Your task to perform on an android device: Open Yahoo.com Image 0: 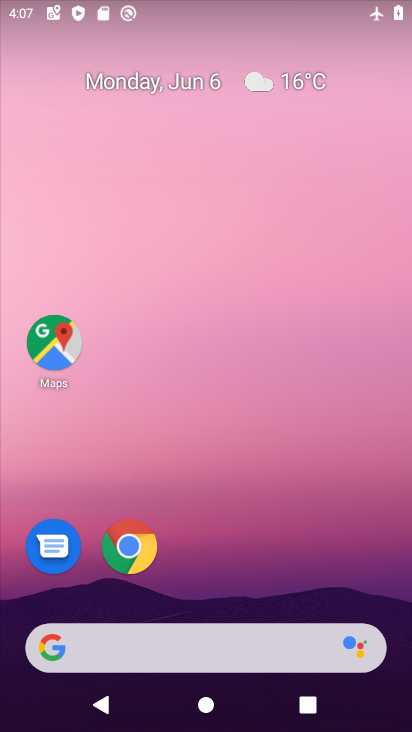
Step 0: drag from (308, 581) to (321, 6)
Your task to perform on an android device: Open Yahoo.com Image 1: 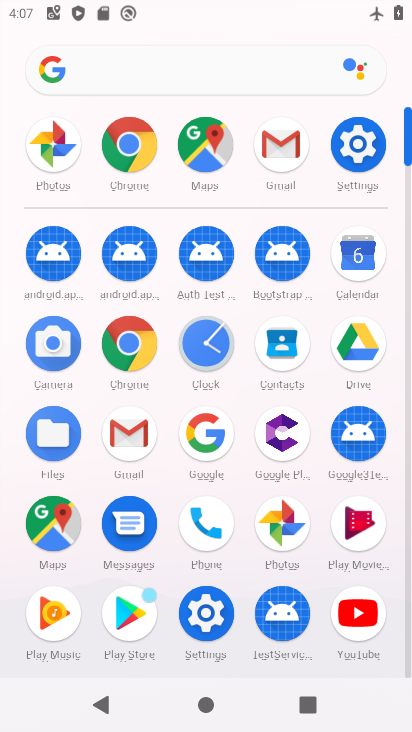
Step 1: click (115, 179)
Your task to perform on an android device: Open Yahoo.com Image 2: 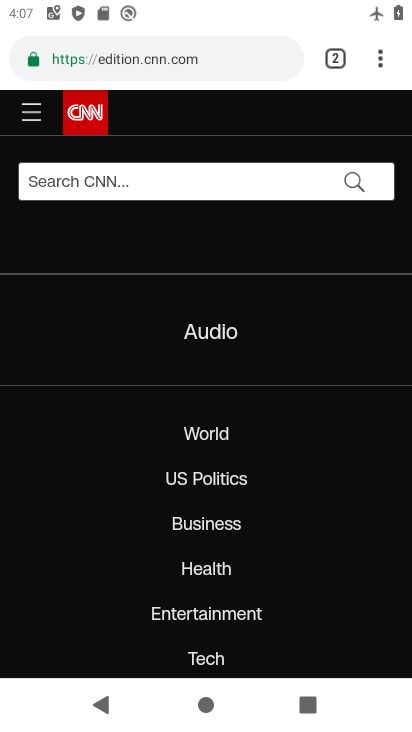
Step 2: click (207, 50)
Your task to perform on an android device: Open Yahoo.com Image 3: 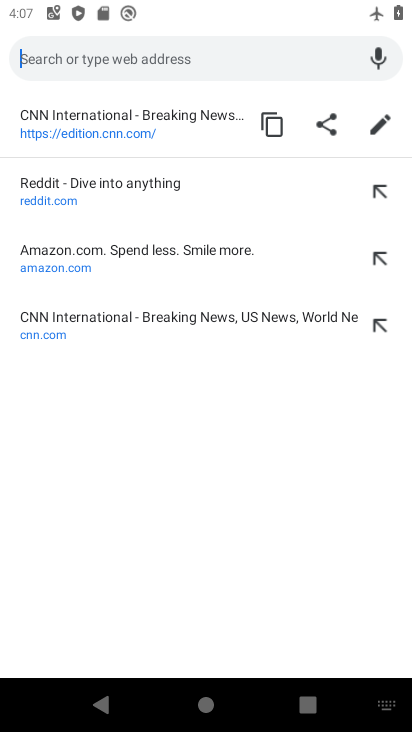
Step 3: type "yahoo"
Your task to perform on an android device: Open Yahoo.com Image 4: 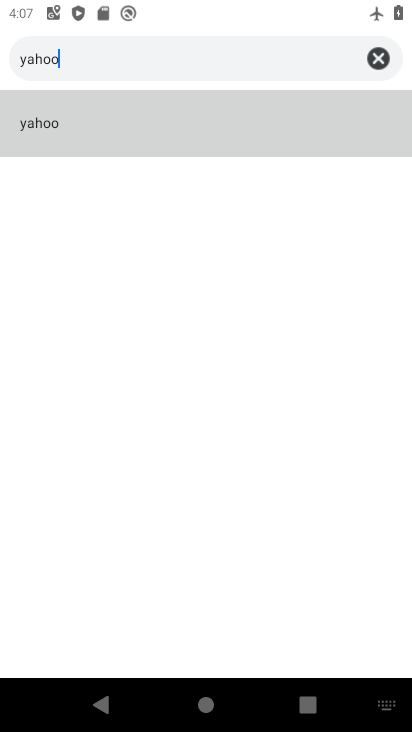
Step 4: click (45, 140)
Your task to perform on an android device: Open Yahoo.com Image 5: 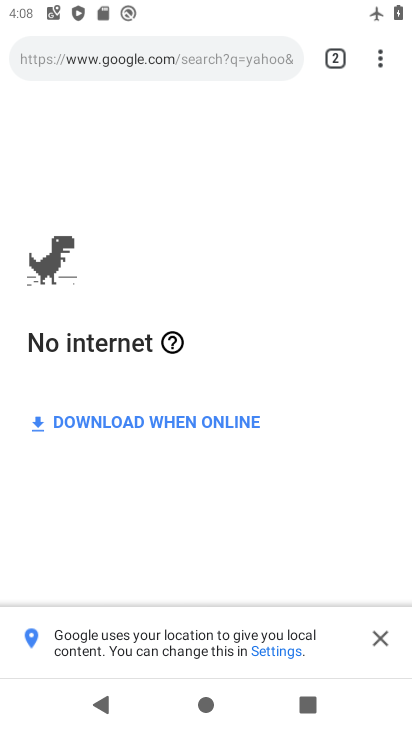
Step 5: task complete